Your task to perform on an android device: Open Google Chrome Image 0: 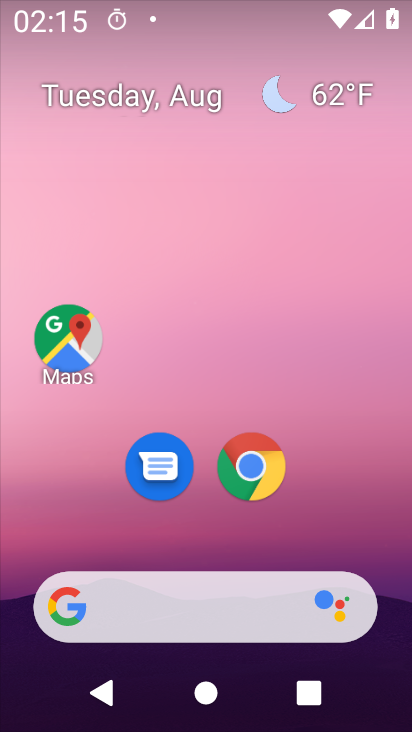
Step 0: press home button
Your task to perform on an android device: Open Google Chrome Image 1: 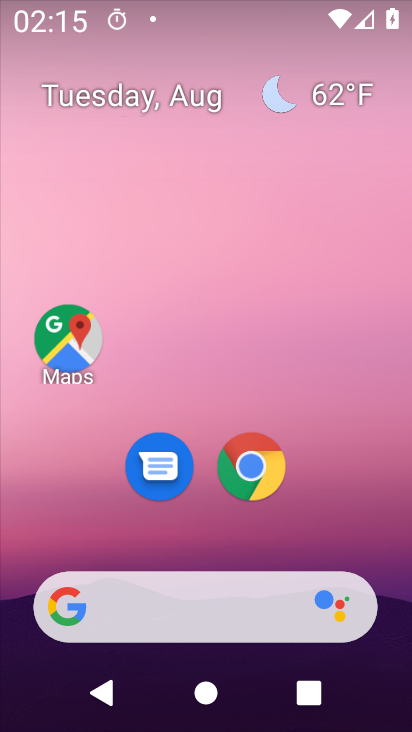
Step 1: drag from (358, 550) to (380, 213)
Your task to perform on an android device: Open Google Chrome Image 2: 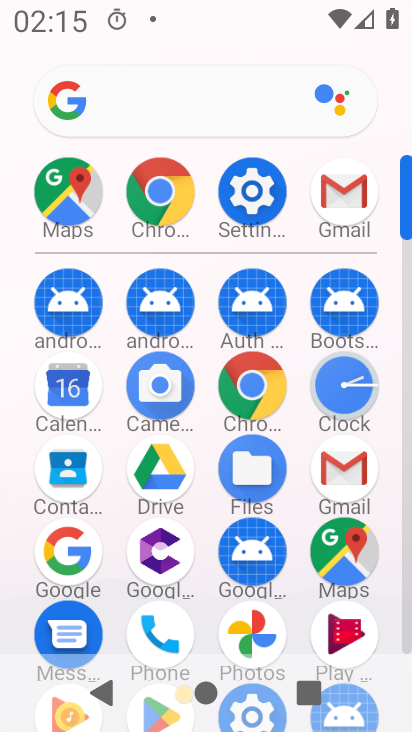
Step 2: click (253, 383)
Your task to perform on an android device: Open Google Chrome Image 3: 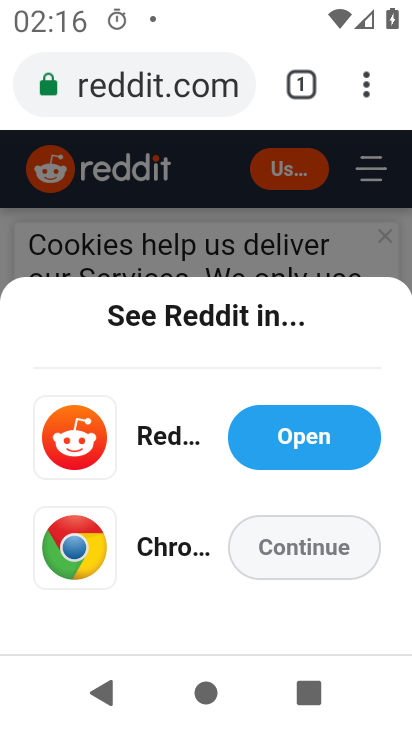
Step 3: task complete